Your task to perform on an android device: What's the weather today? Image 0: 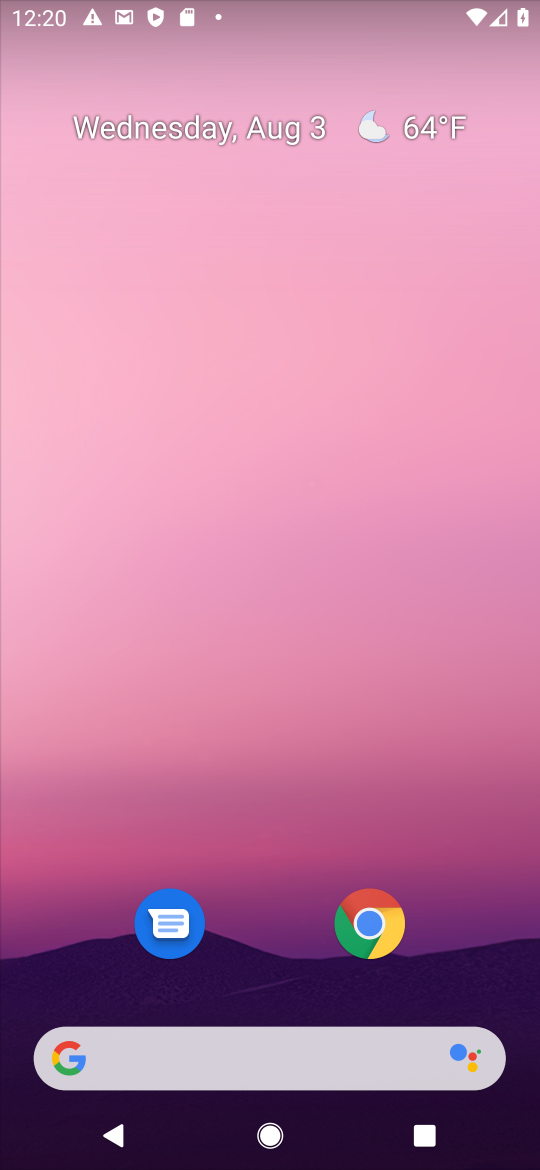
Step 0: drag from (256, 950) to (356, 256)
Your task to perform on an android device: What's the weather today? Image 1: 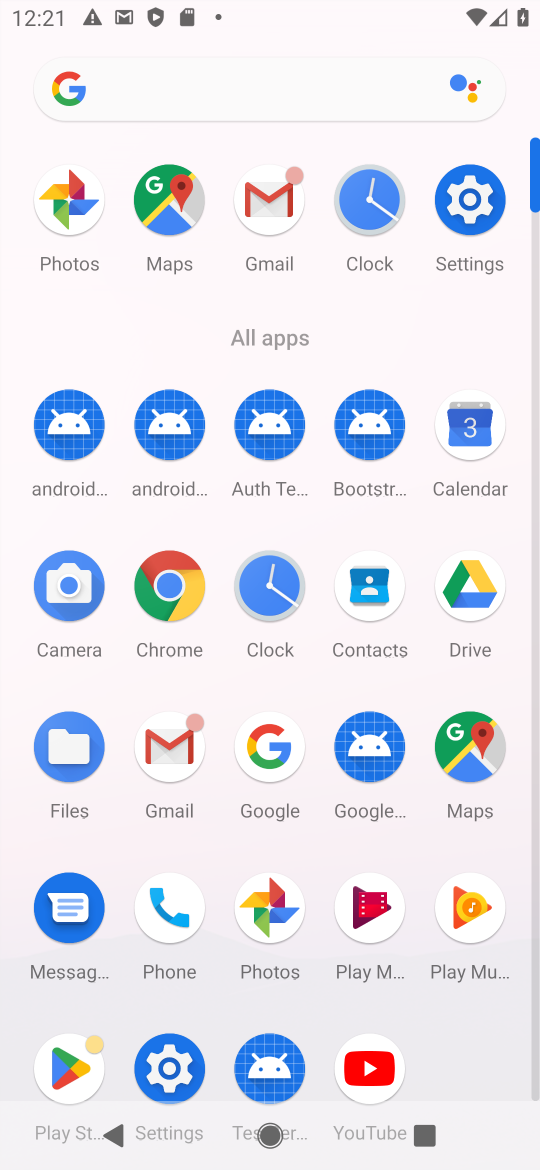
Step 1: click (102, 78)
Your task to perform on an android device: What's the weather today? Image 2: 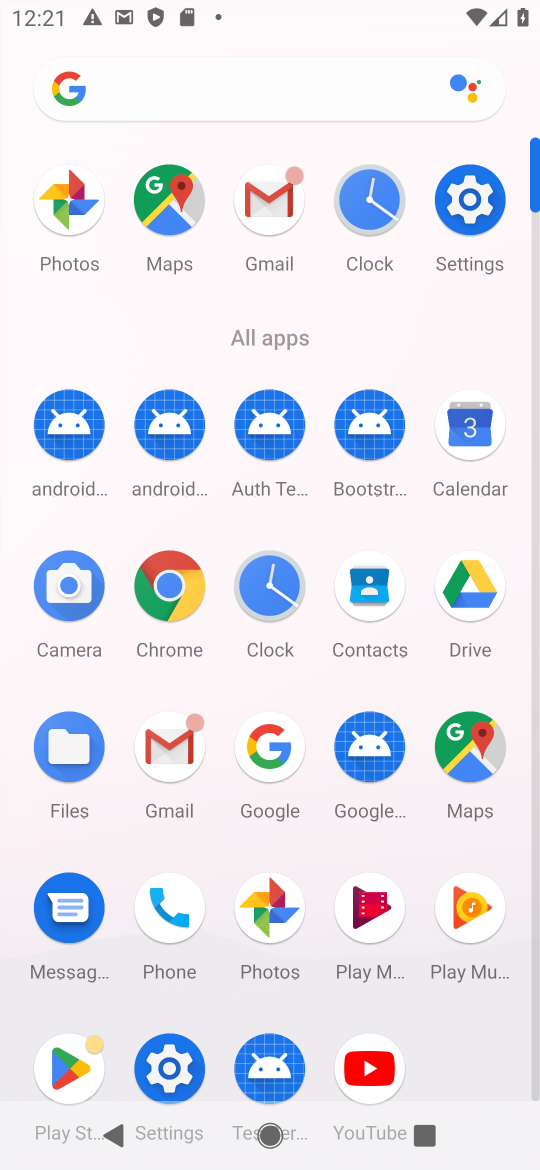
Step 2: click (207, 112)
Your task to perform on an android device: What's the weather today? Image 3: 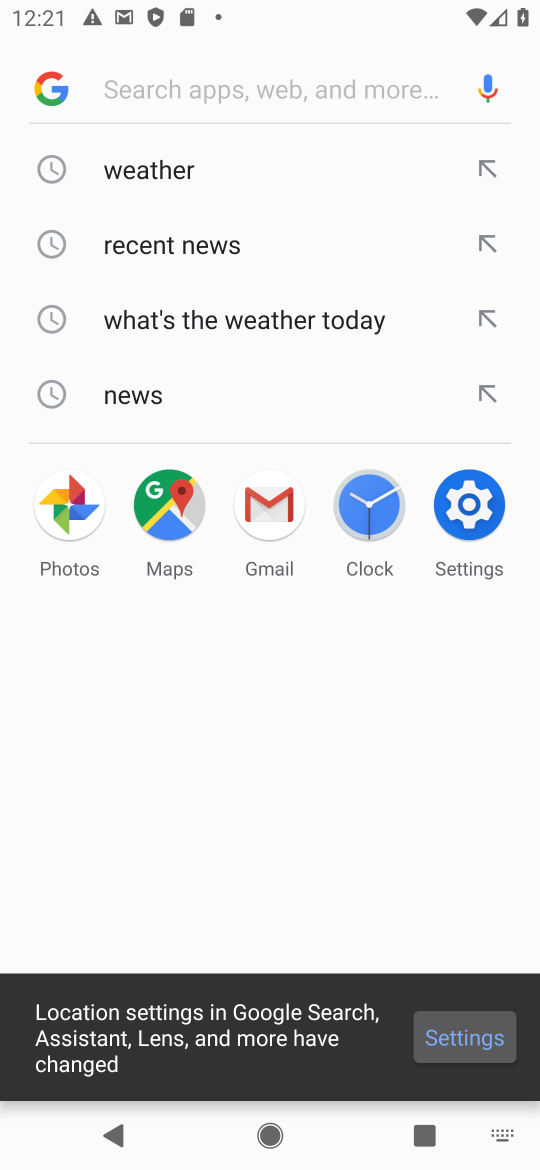
Step 3: click (206, 183)
Your task to perform on an android device: What's the weather today? Image 4: 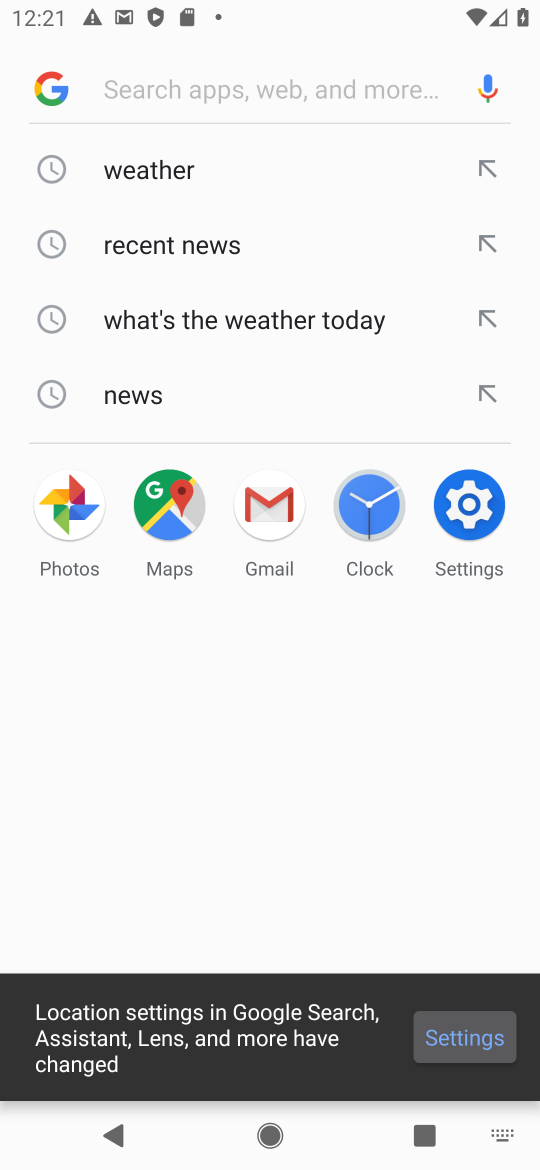
Step 4: drag from (206, 183) to (248, 425)
Your task to perform on an android device: What's the weather today? Image 5: 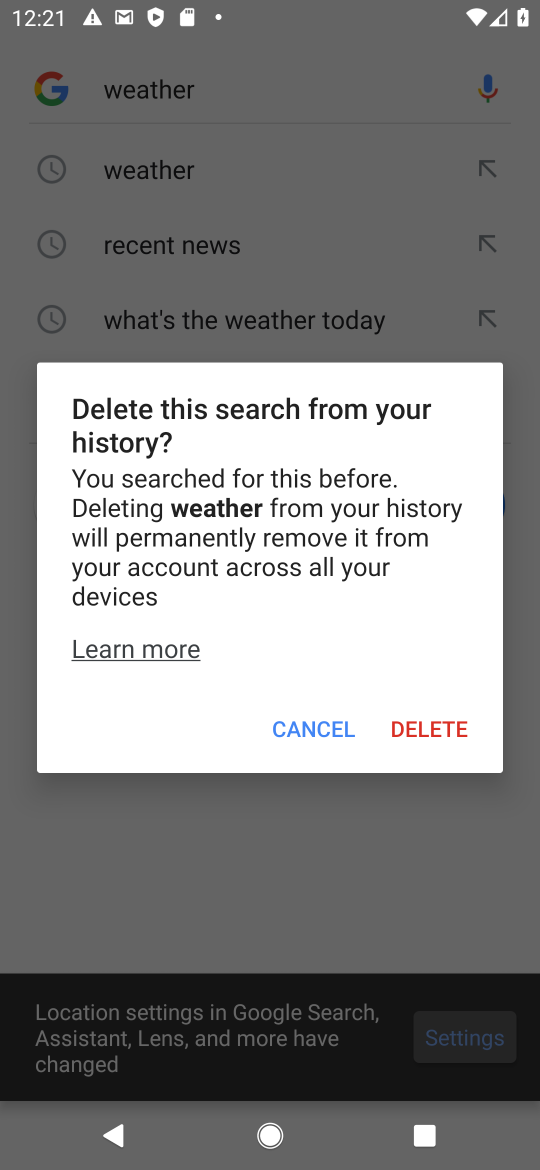
Step 5: click (328, 747)
Your task to perform on an android device: What's the weather today? Image 6: 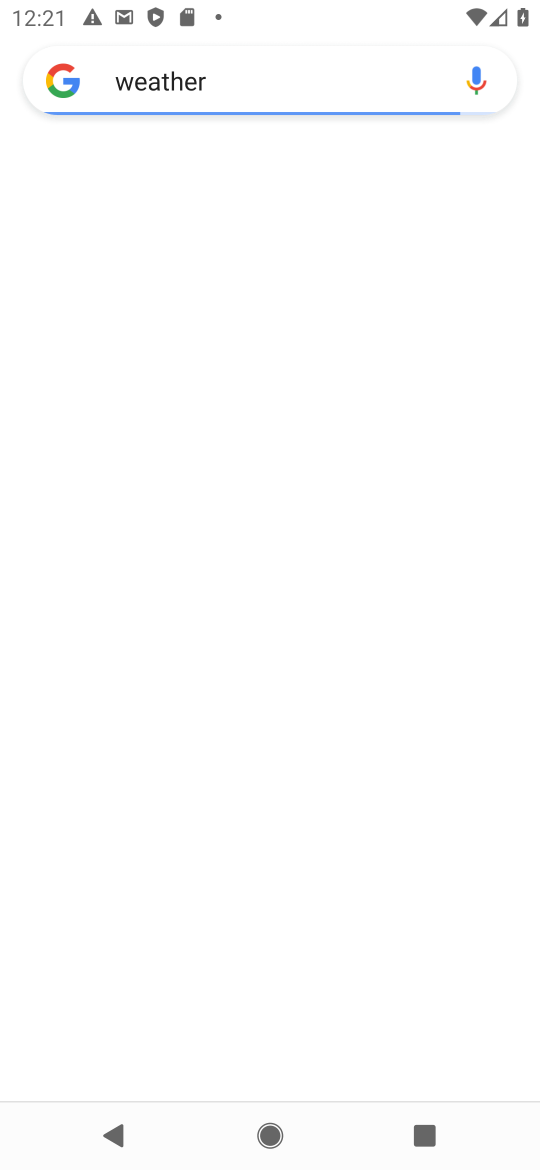
Step 6: click (285, 59)
Your task to perform on an android device: What's the weather today? Image 7: 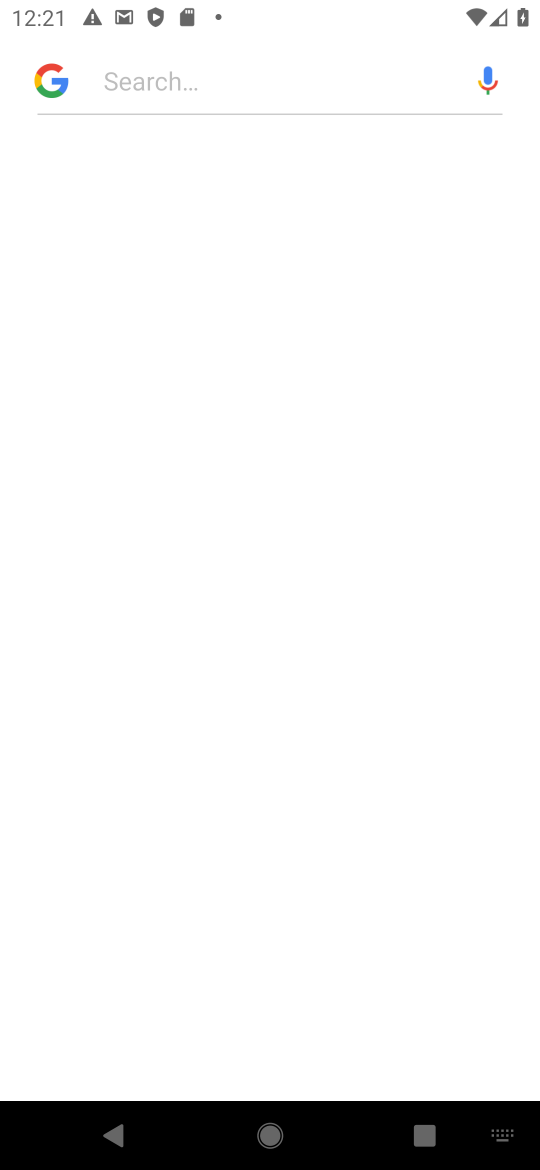
Step 7: type "What's the weather today?"
Your task to perform on an android device: What's the weather today? Image 8: 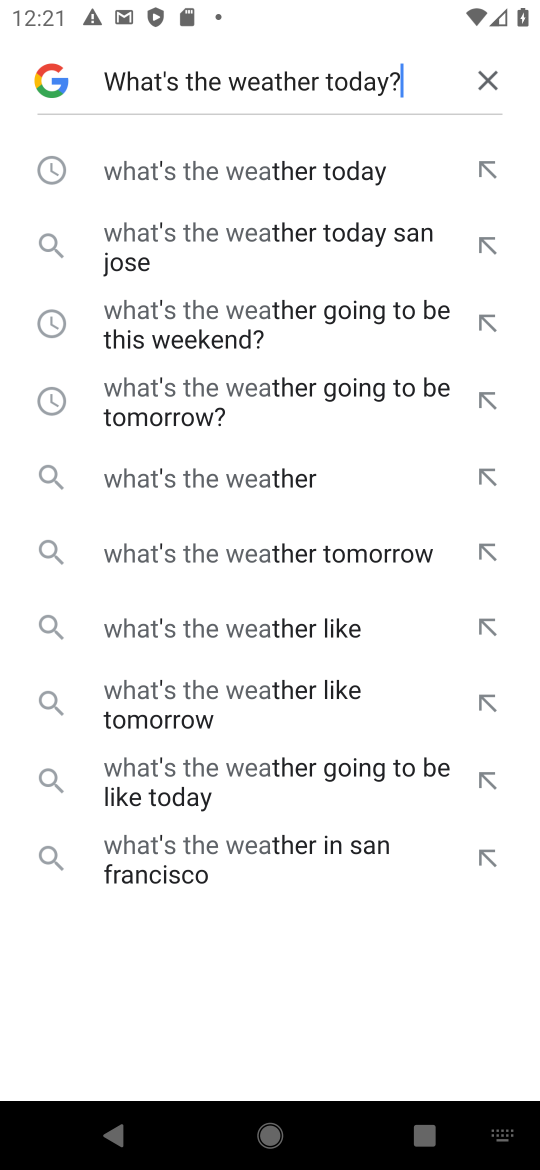
Step 8: type ""
Your task to perform on an android device: What's the weather today? Image 9: 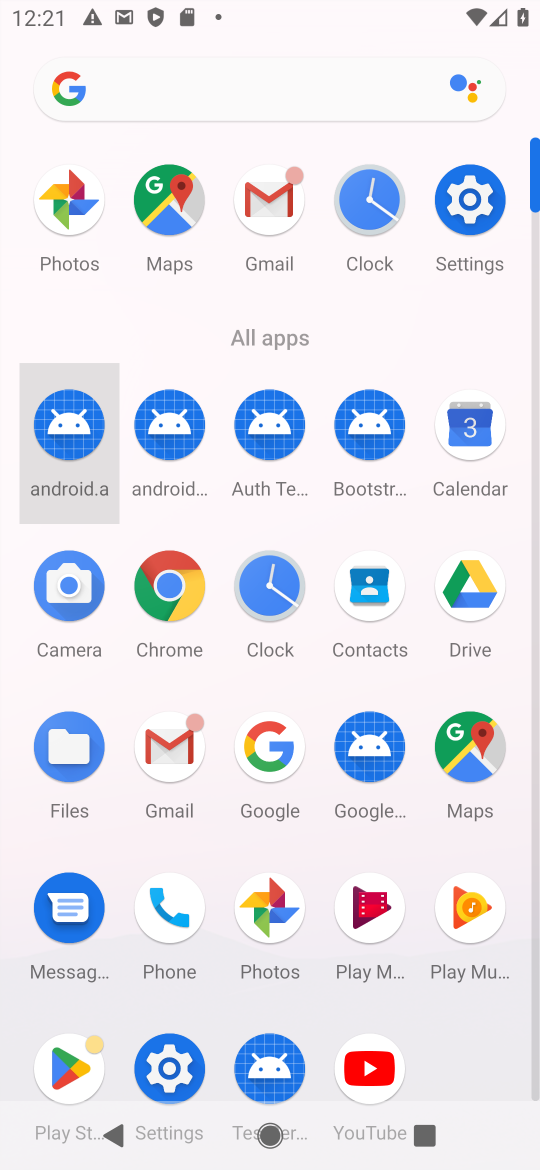
Step 9: click (213, 89)
Your task to perform on an android device: What's the weather today? Image 10: 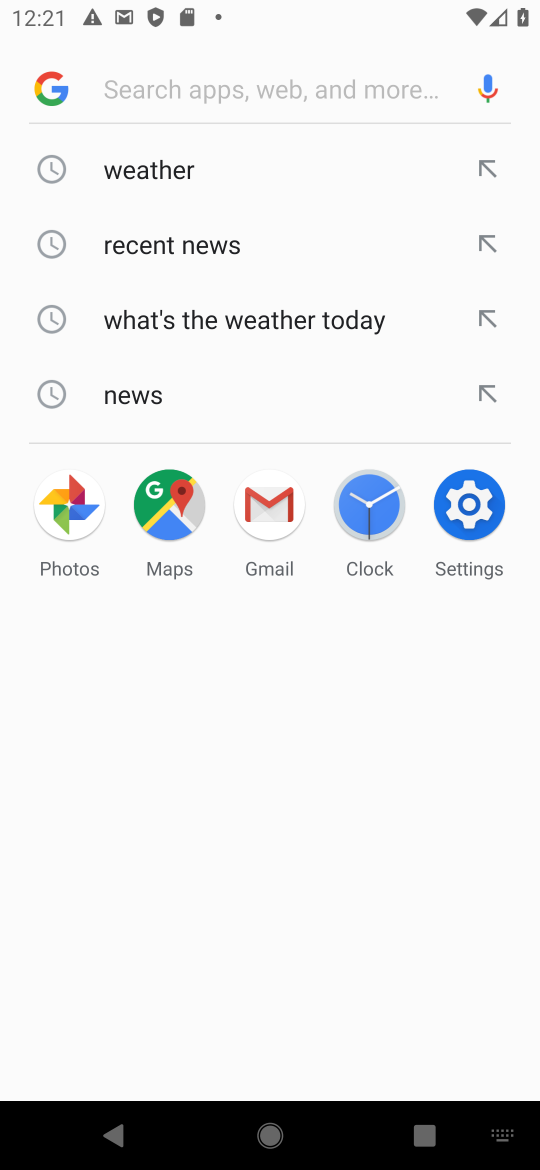
Step 10: type "What's the weather today?"
Your task to perform on an android device: What's the weather today? Image 11: 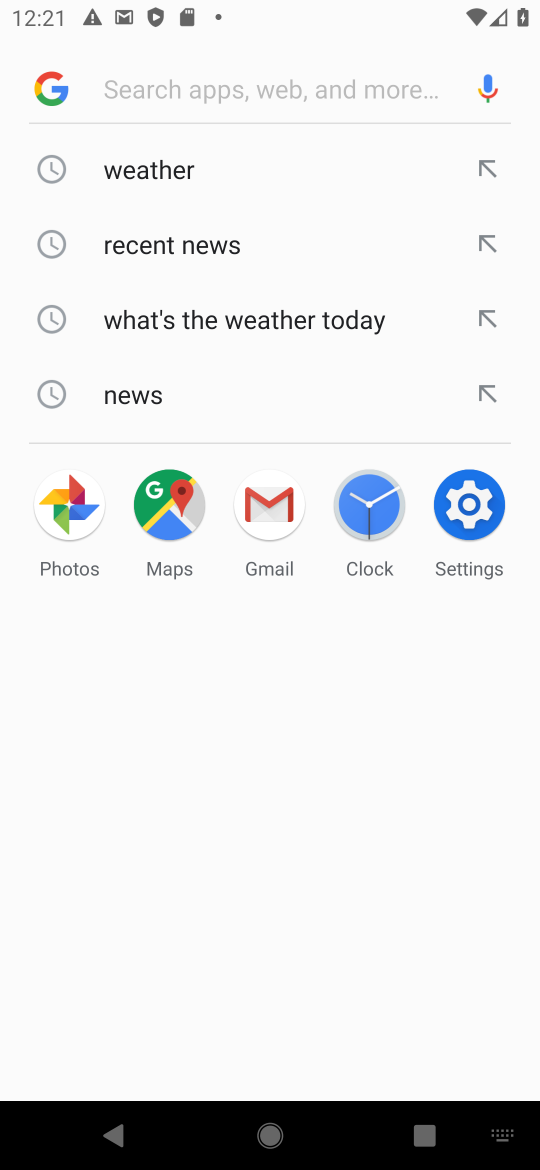
Step 11: click (205, 82)
Your task to perform on an android device: What's the weather today? Image 12: 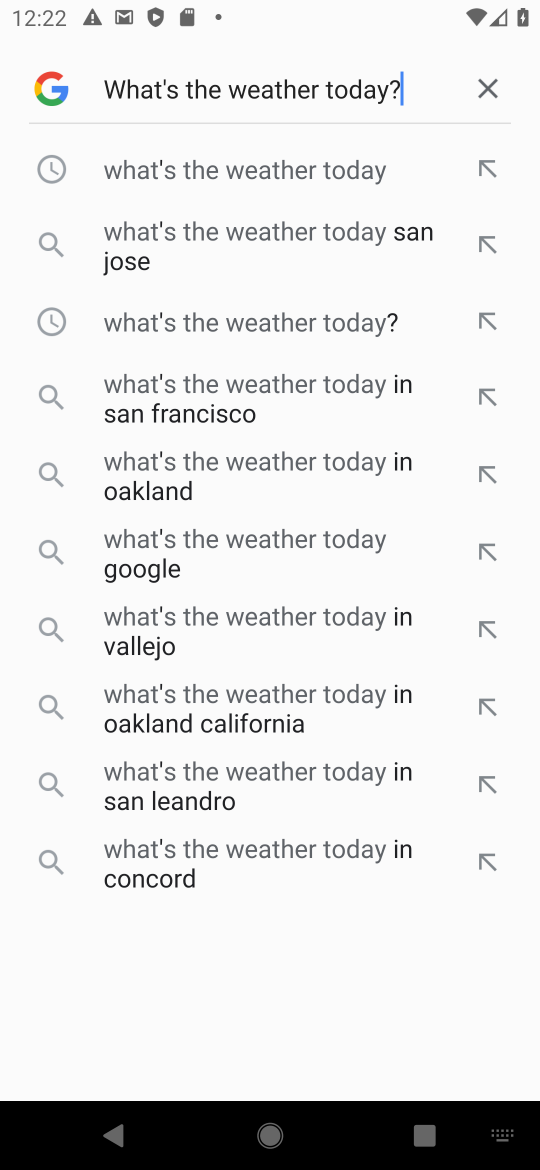
Step 12: type ""
Your task to perform on an android device: What's the weather today? Image 13: 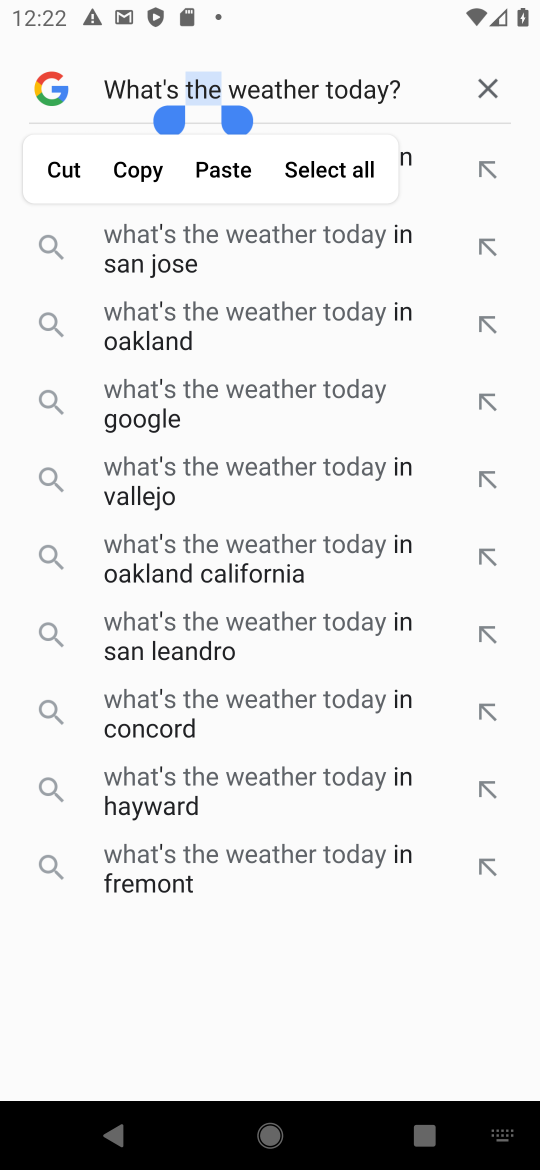
Step 13: click (177, 395)
Your task to perform on an android device: What's the weather today? Image 14: 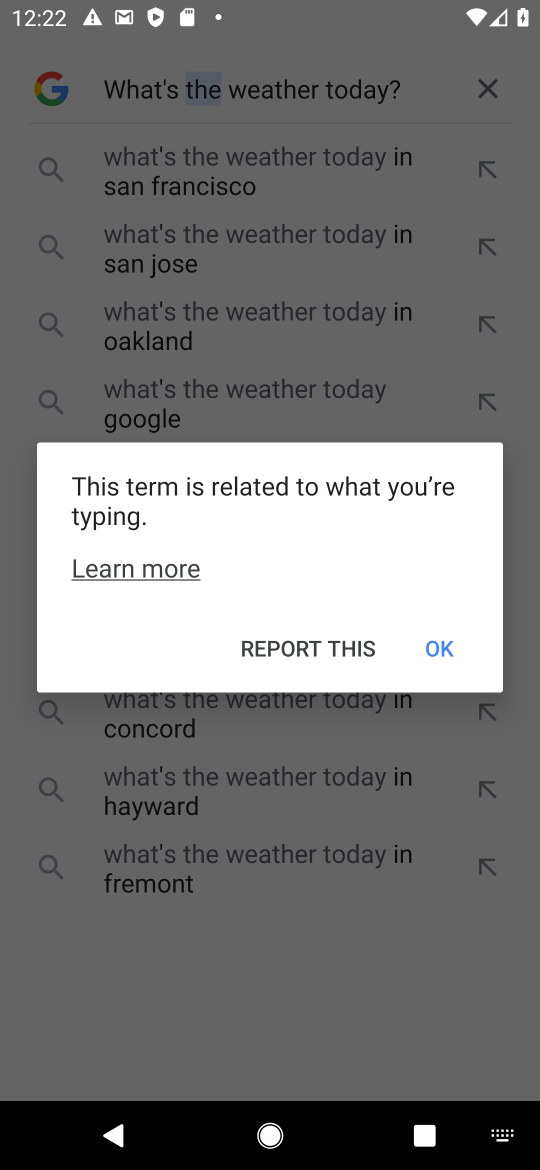
Step 14: click (433, 639)
Your task to perform on an android device: What's the weather today? Image 15: 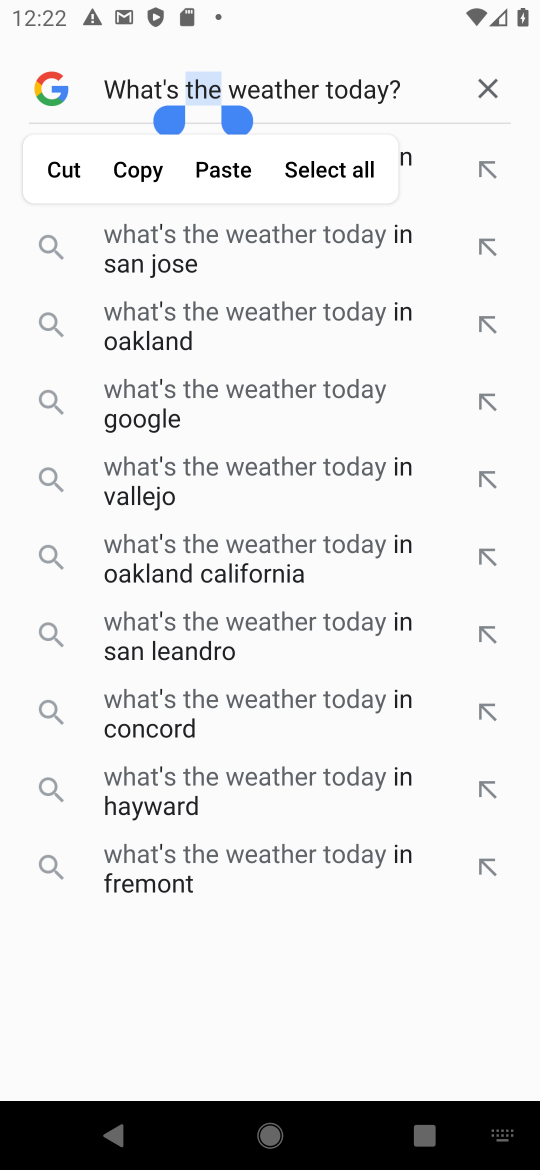
Step 15: click (72, 411)
Your task to perform on an android device: What's the weather today? Image 16: 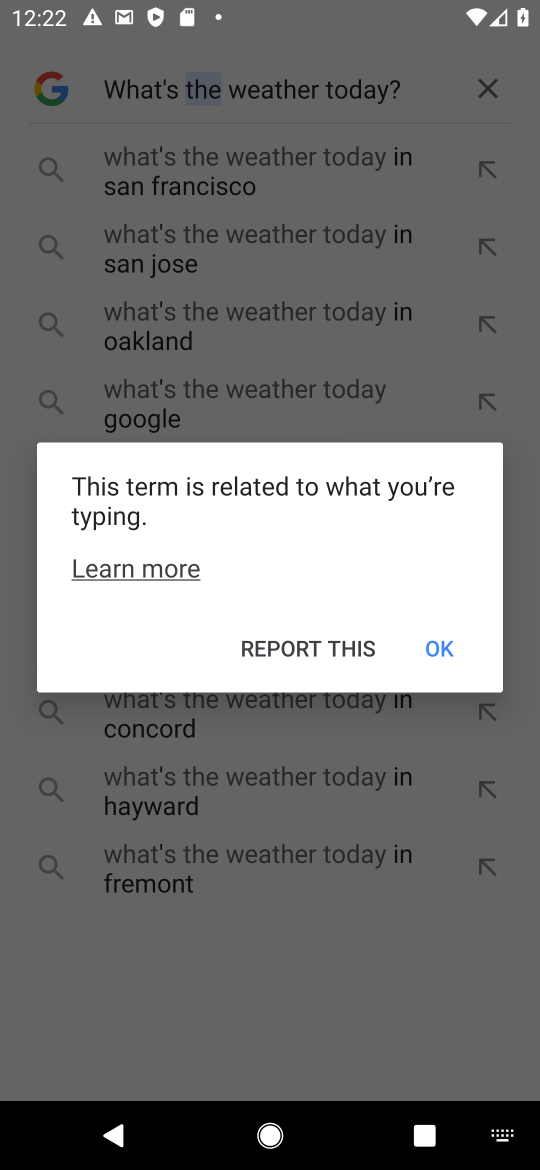
Step 16: click (448, 667)
Your task to perform on an android device: What's the weather today? Image 17: 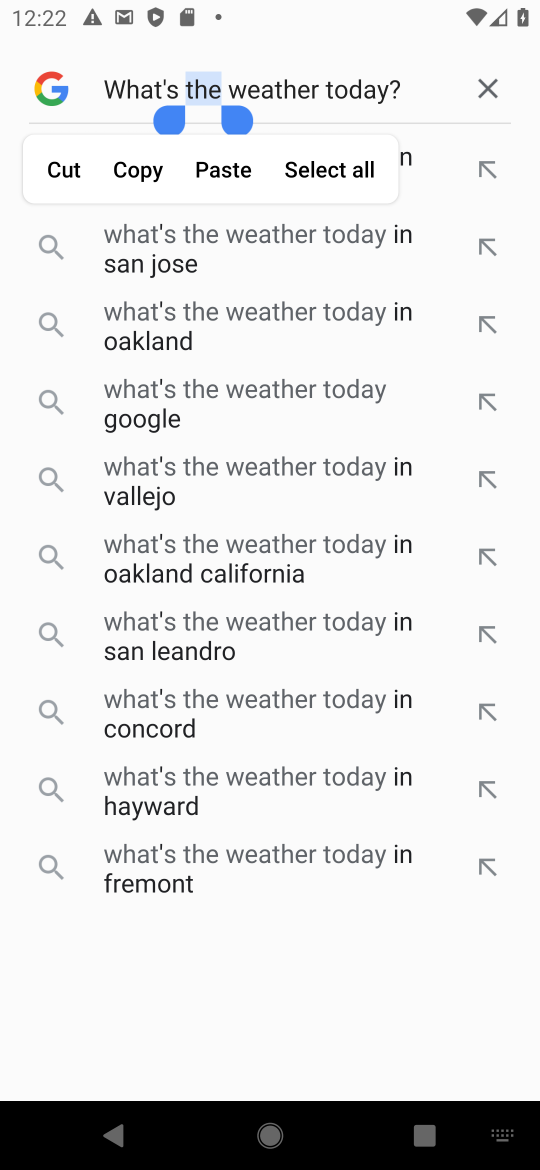
Step 17: click (50, 230)
Your task to perform on an android device: What's the weather today? Image 18: 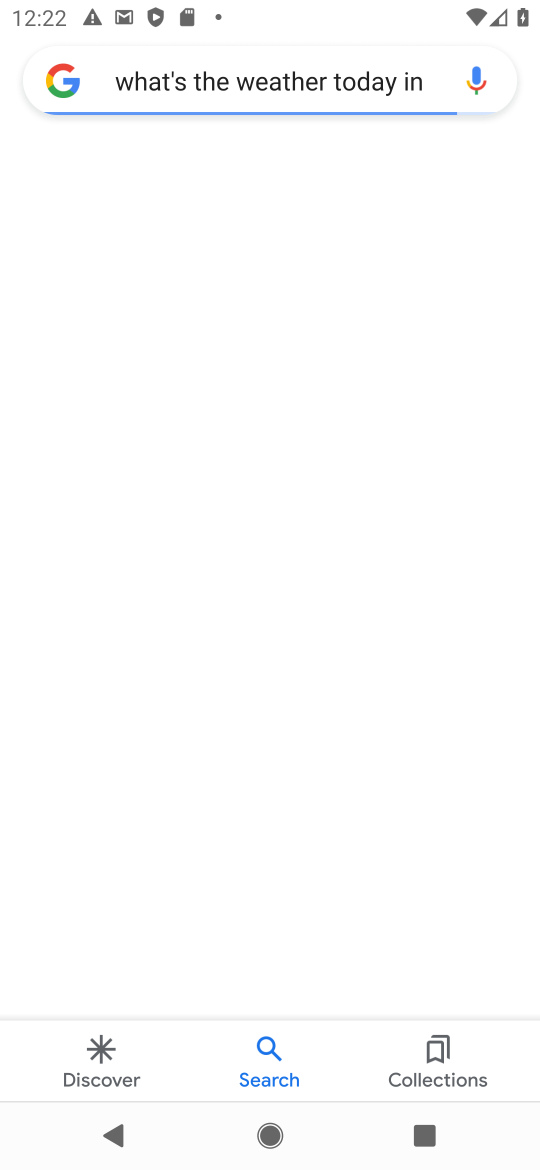
Step 18: task complete